Your task to perform on an android device: check out phone information Image 0: 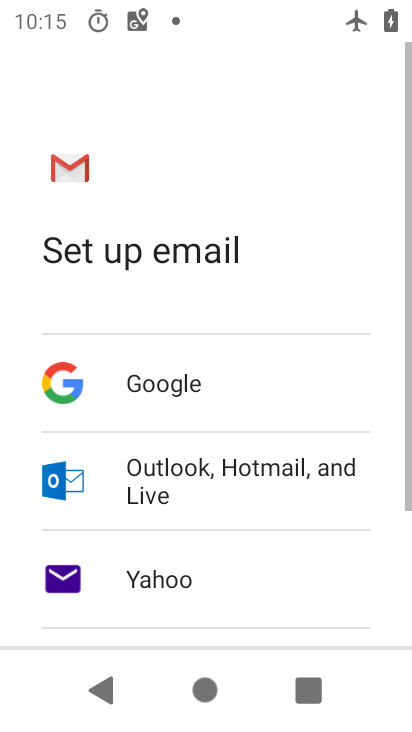
Step 0: drag from (242, 707) to (227, 162)
Your task to perform on an android device: check out phone information Image 1: 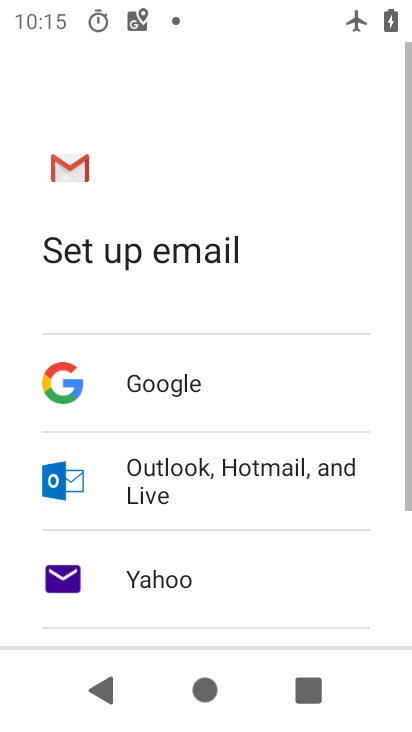
Step 1: press back button
Your task to perform on an android device: check out phone information Image 2: 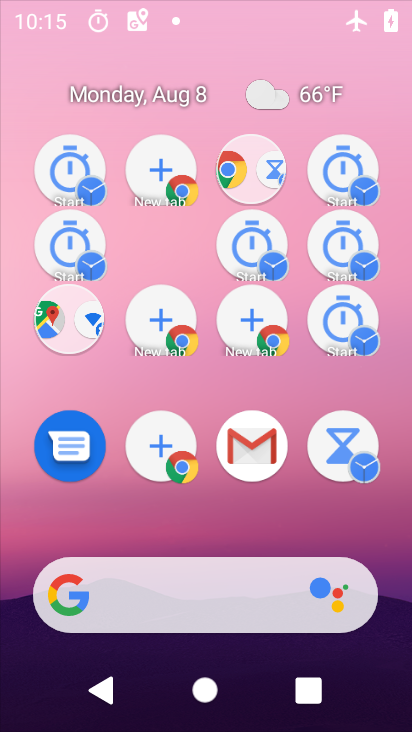
Step 2: press back button
Your task to perform on an android device: check out phone information Image 3: 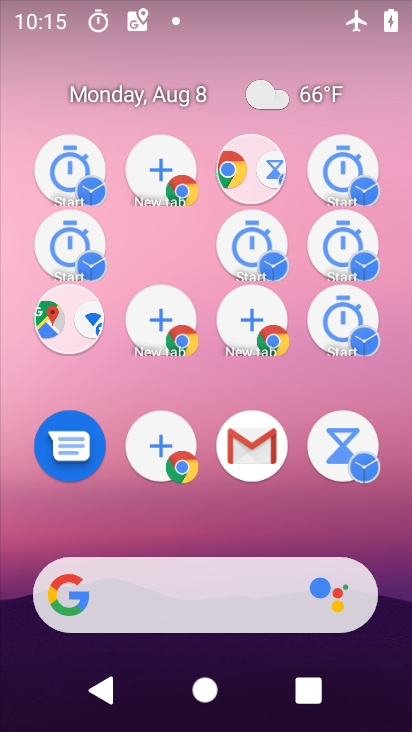
Step 3: drag from (253, 316) to (258, 235)
Your task to perform on an android device: check out phone information Image 4: 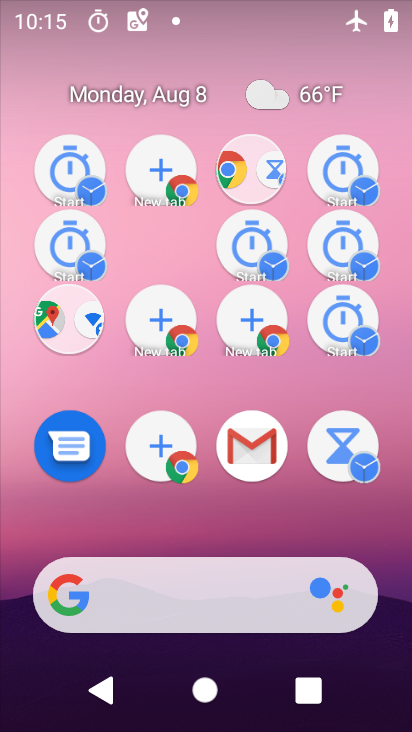
Step 4: drag from (238, 608) to (220, 49)
Your task to perform on an android device: check out phone information Image 5: 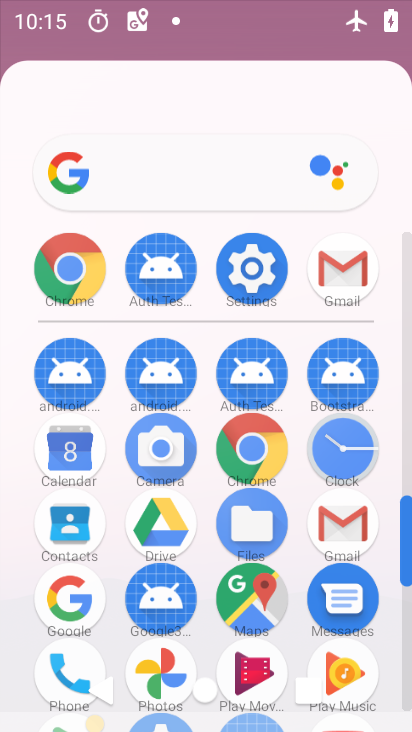
Step 5: drag from (236, 497) to (217, 213)
Your task to perform on an android device: check out phone information Image 6: 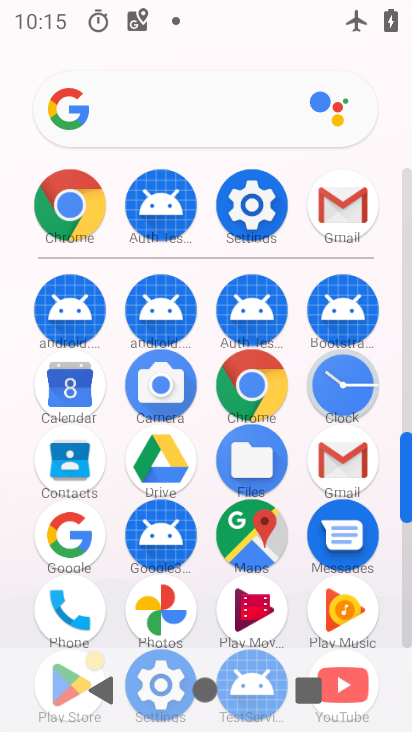
Step 6: click (246, 192)
Your task to perform on an android device: check out phone information Image 7: 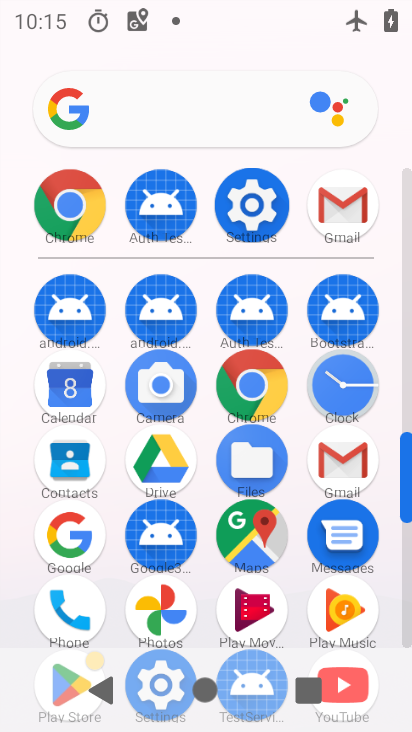
Step 7: click (245, 216)
Your task to perform on an android device: check out phone information Image 8: 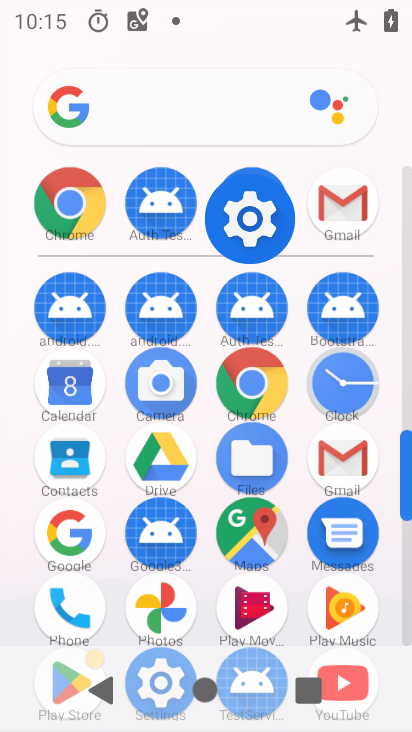
Step 8: click (245, 217)
Your task to perform on an android device: check out phone information Image 9: 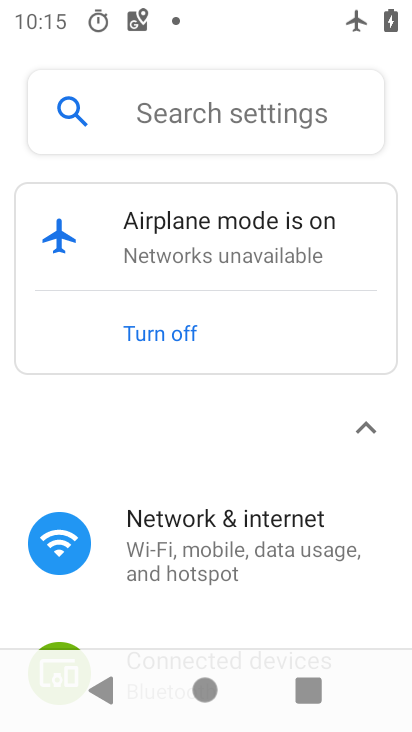
Step 9: drag from (225, 471) to (231, 297)
Your task to perform on an android device: check out phone information Image 10: 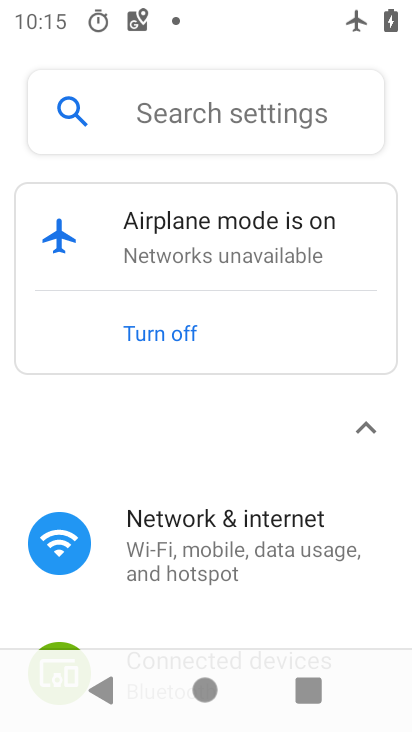
Step 10: drag from (225, 433) to (218, 131)
Your task to perform on an android device: check out phone information Image 11: 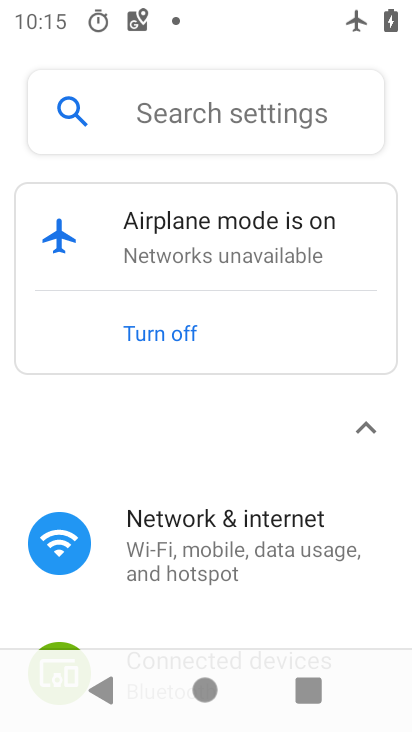
Step 11: drag from (223, 369) to (223, 163)
Your task to perform on an android device: check out phone information Image 12: 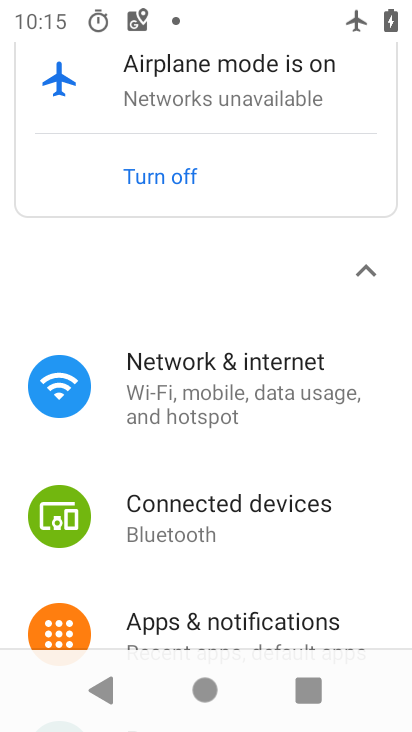
Step 12: drag from (220, 551) to (220, 168)
Your task to perform on an android device: check out phone information Image 13: 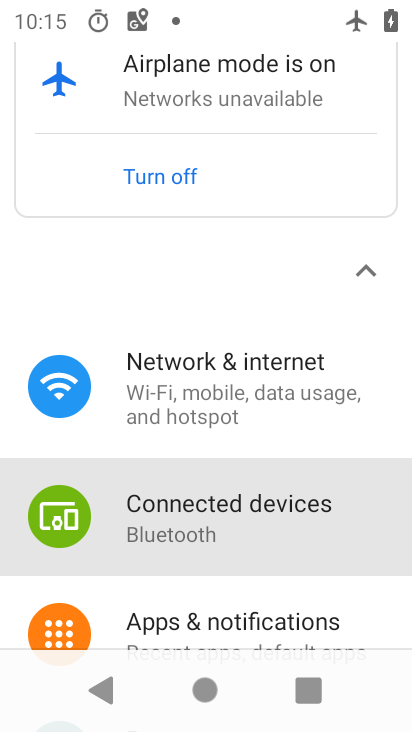
Step 13: drag from (222, 487) to (250, 190)
Your task to perform on an android device: check out phone information Image 14: 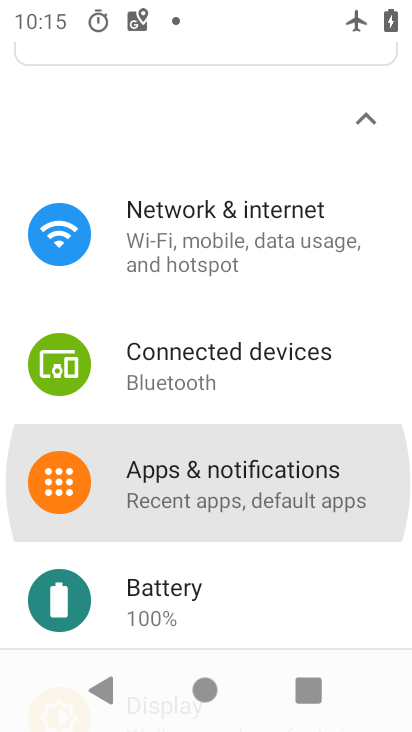
Step 14: drag from (229, 554) to (220, 252)
Your task to perform on an android device: check out phone information Image 15: 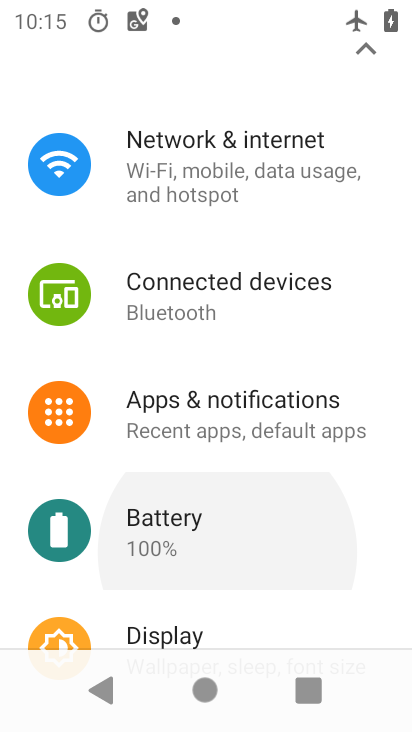
Step 15: drag from (230, 534) to (237, 307)
Your task to perform on an android device: check out phone information Image 16: 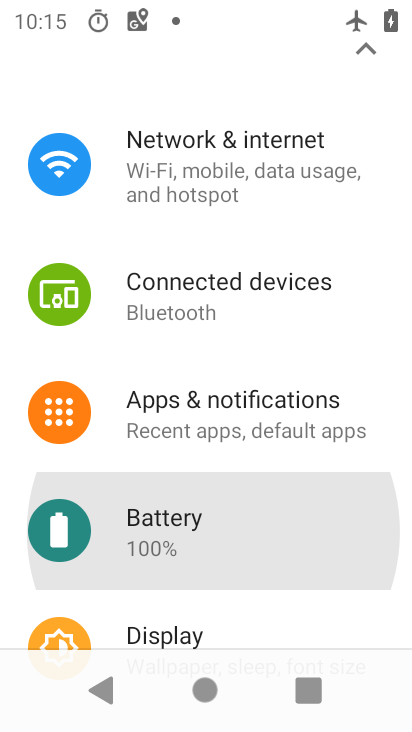
Step 16: drag from (223, 474) to (223, 315)
Your task to perform on an android device: check out phone information Image 17: 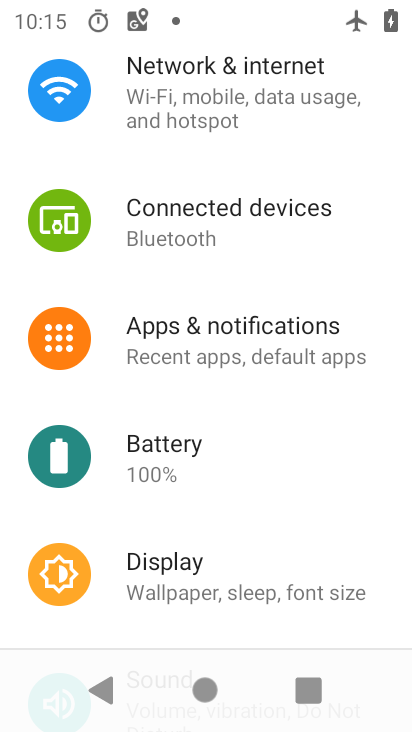
Step 17: drag from (192, 532) to (225, 239)
Your task to perform on an android device: check out phone information Image 18: 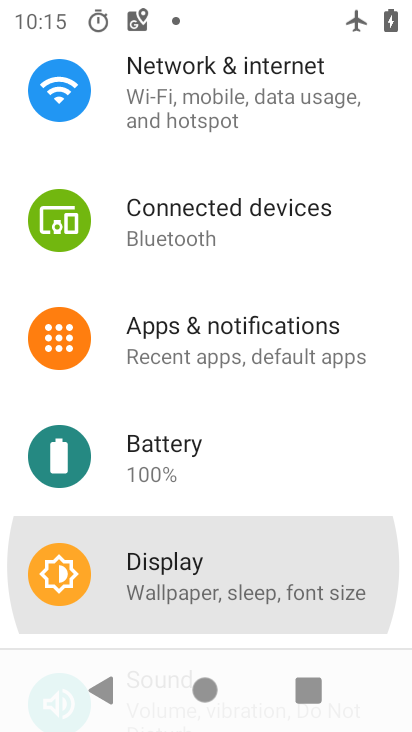
Step 18: drag from (183, 546) to (205, 242)
Your task to perform on an android device: check out phone information Image 19: 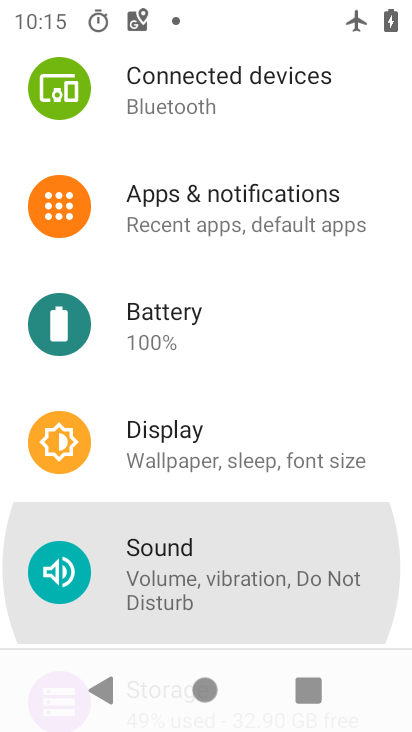
Step 19: drag from (206, 438) to (222, 299)
Your task to perform on an android device: check out phone information Image 20: 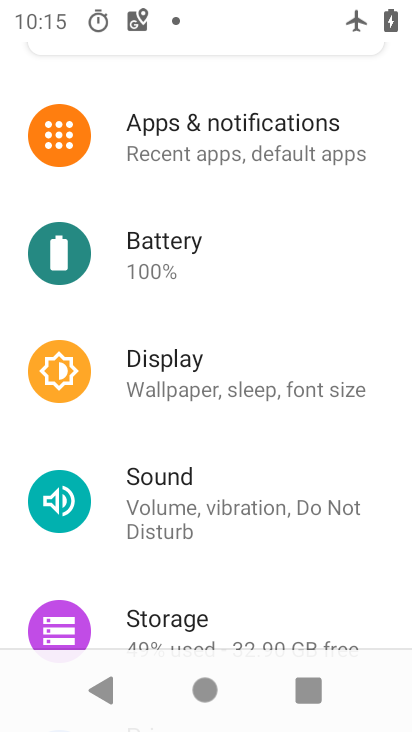
Step 20: drag from (231, 466) to (269, 202)
Your task to perform on an android device: check out phone information Image 21: 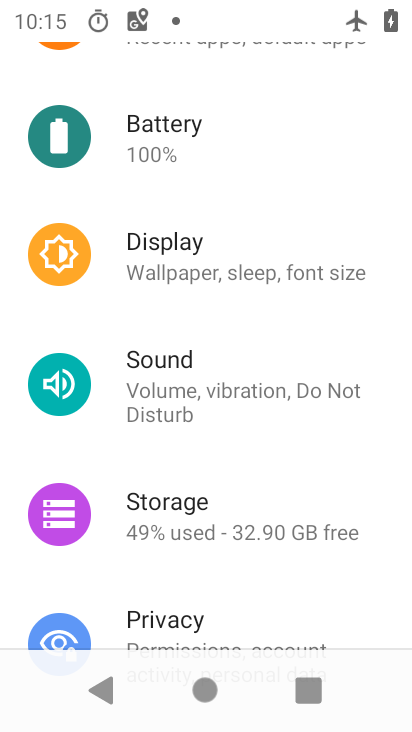
Step 21: drag from (246, 550) to (247, 339)
Your task to perform on an android device: check out phone information Image 22: 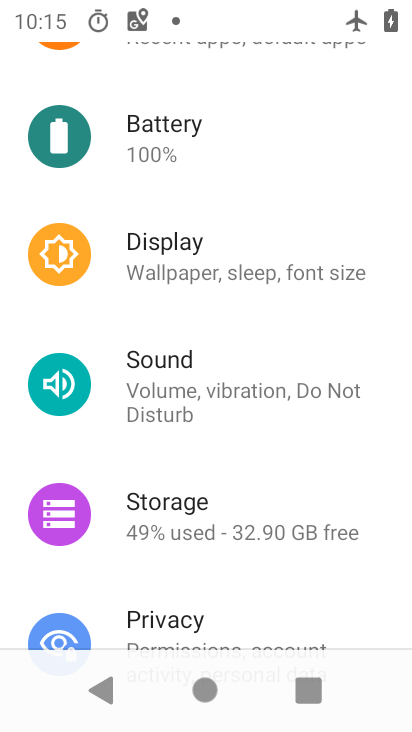
Step 22: drag from (216, 628) to (216, 295)
Your task to perform on an android device: check out phone information Image 23: 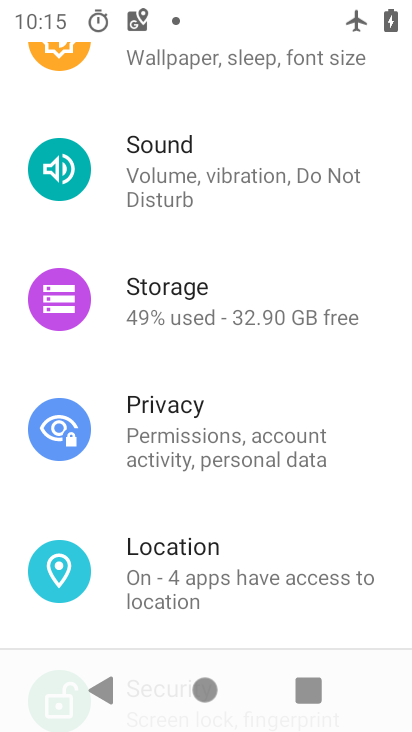
Step 23: drag from (238, 514) to (279, 359)
Your task to perform on an android device: check out phone information Image 24: 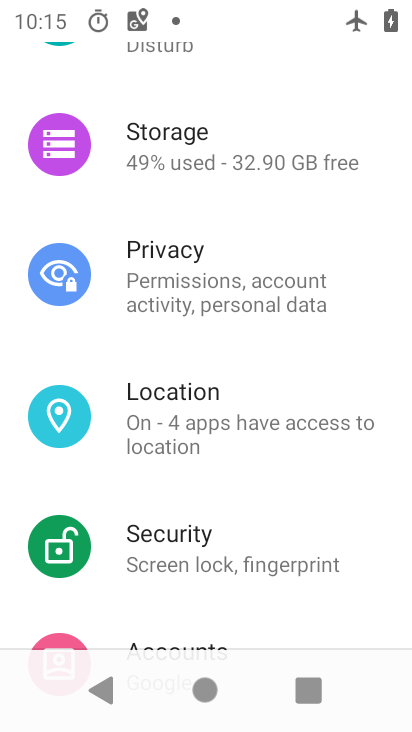
Step 24: drag from (248, 536) to (215, 207)
Your task to perform on an android device: check out phone information Image 25: 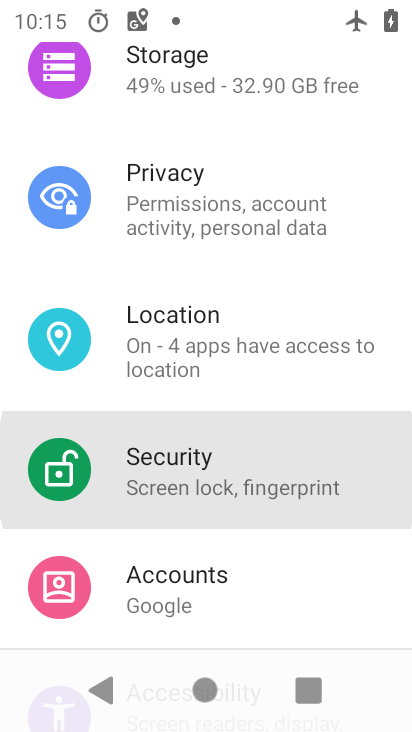
Step 25: drag from (216, 451) to (203, 196)
Your task to perform on an android device: check out phone information Image 26: 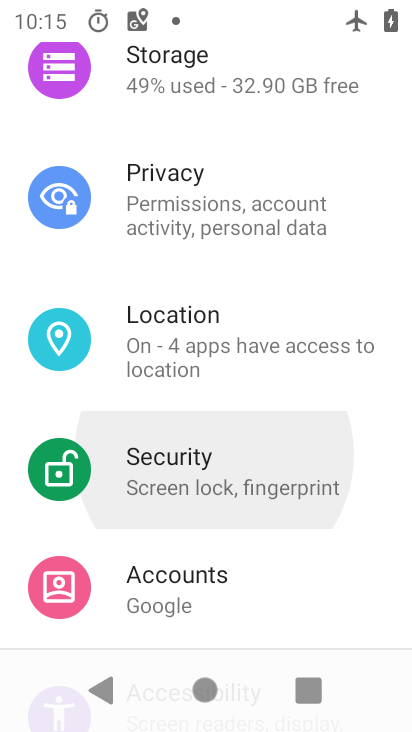
Step 26: drag from (216, 467) to (211, 172)
Your task to perform on an android device: check out phone information Image 27: 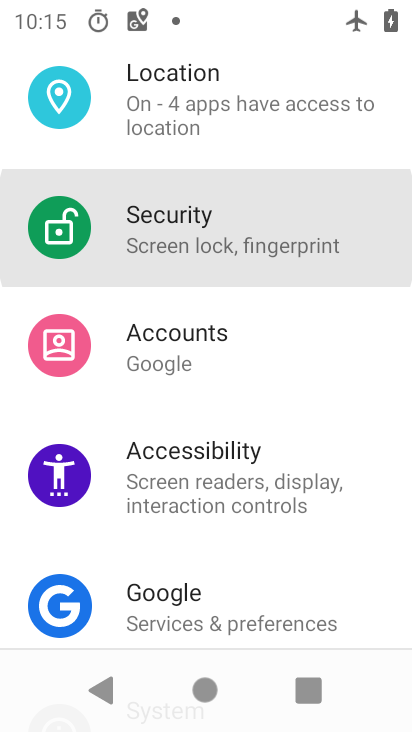
Step 27: drag from (232, 460) to (232, 175)
Your task to perform on an android device: check out phone information Image 28: 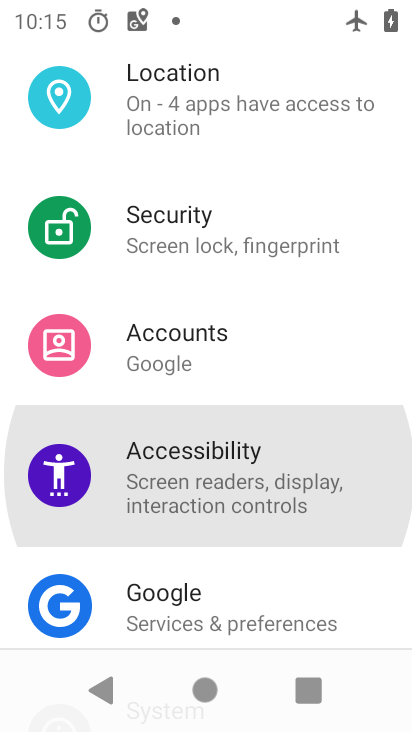
Step 28: drag from (223, 322) to (222, 241)
Your task to perform on an android device: check out phone information Image 29: 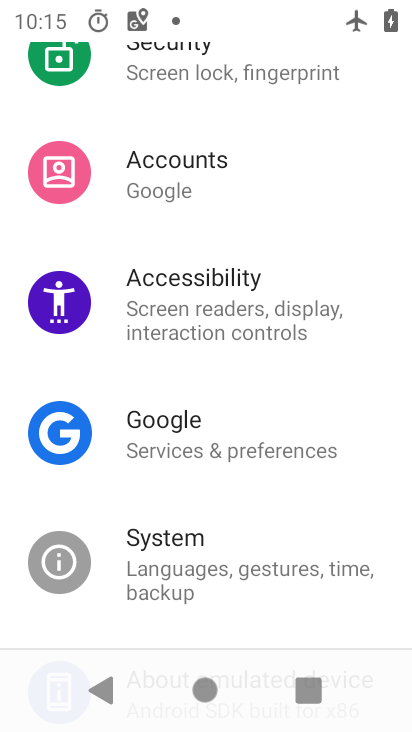
Step 29: drag from (198, 508) to (198, 169)
Your task to perform on an android device: check out phone information Image 30: 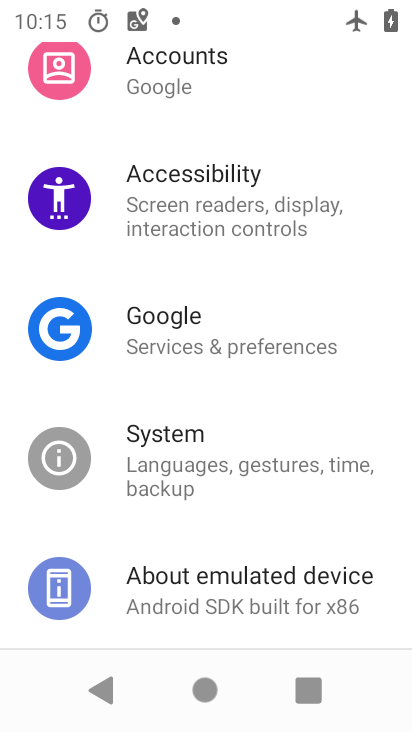
Step 30: drag from (240, 407) to (233, 245)
Your task to perform on an android device: check out phone information Image 31: 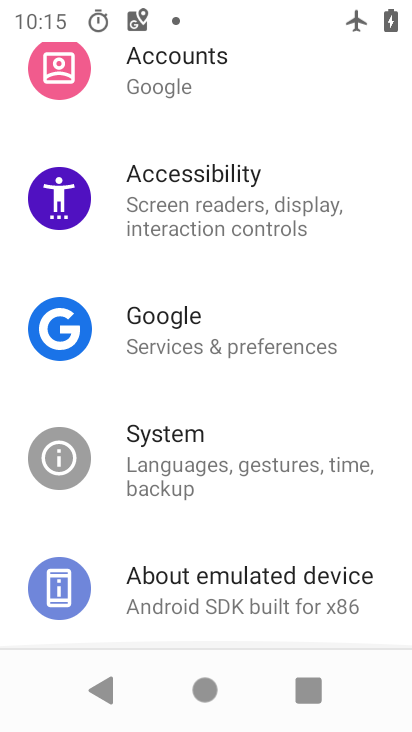
Step 31: drag from (168, 585) to (182, 277)
Your task to perform on an android device: check out phone information Image 32: 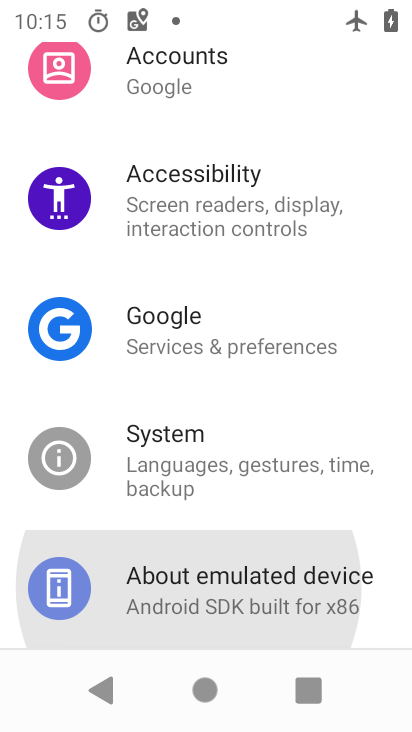
Step 32: drag from (252, 575) to (271, 287)
Your task to perform on an android device: check out phone information Image 33: 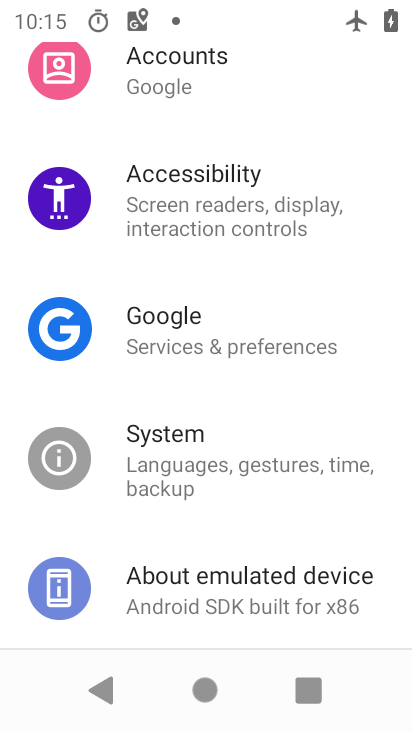
Step 33: click (223, 592)
Your task to perform on an android device: check out phone information Image 34: 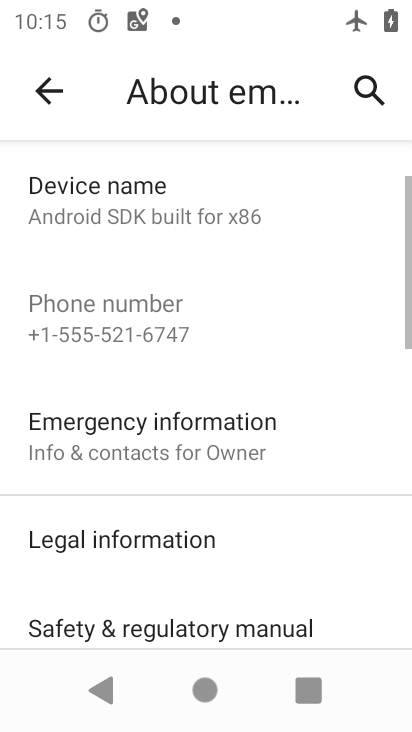
Step 34: task complete